Your task to perform on an android device: remove spam from my inbox in the gmail app Image 0: 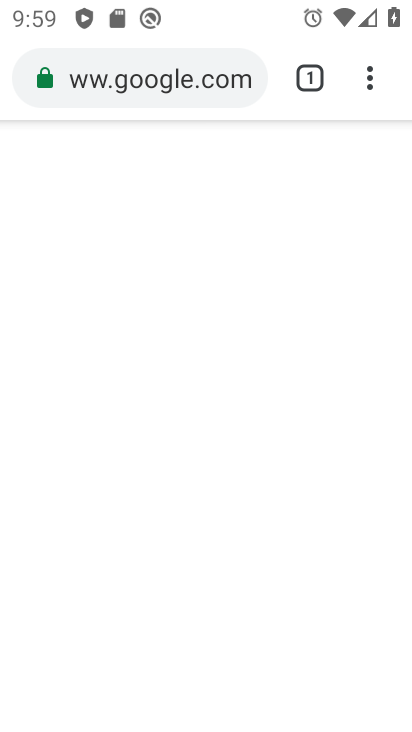
Step 0: click (407, 397)
Your task to perform on an android device: remove spam from my inbox in the gmail app Image 1: 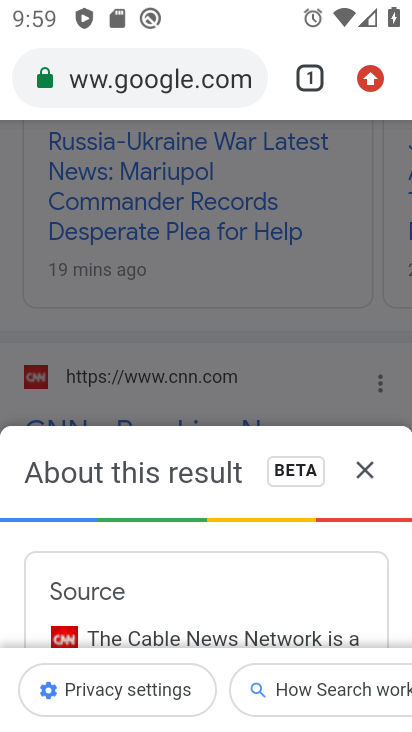
Step 1: click (197, 63)
Your task to perform on an android device: remove spam from my inbox in the gmail app Image 2: 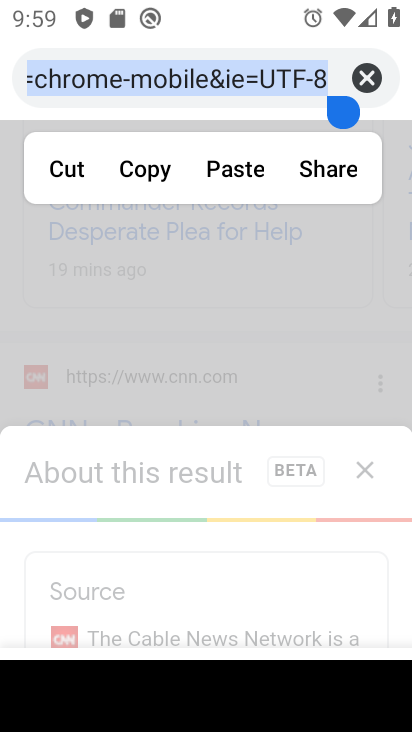
Step 2: click (378, 89)
Your task to perform on an android device: remove spam from my inbox in the gmail app Image 3: 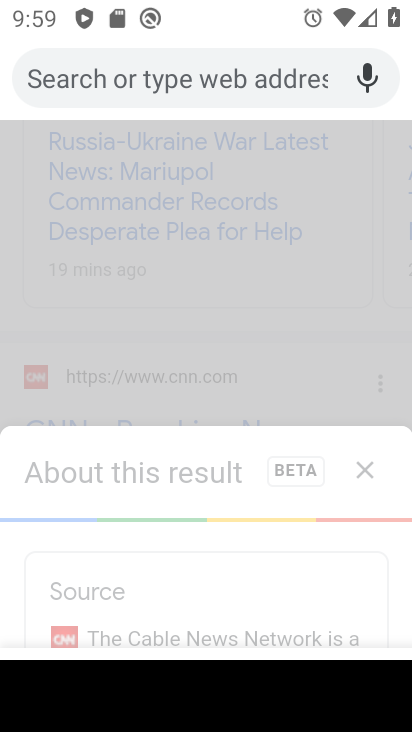
Step 3: click (193, 88)
Your task to perform on an android device: remove spam from my inbox in the gmail app Image 4: 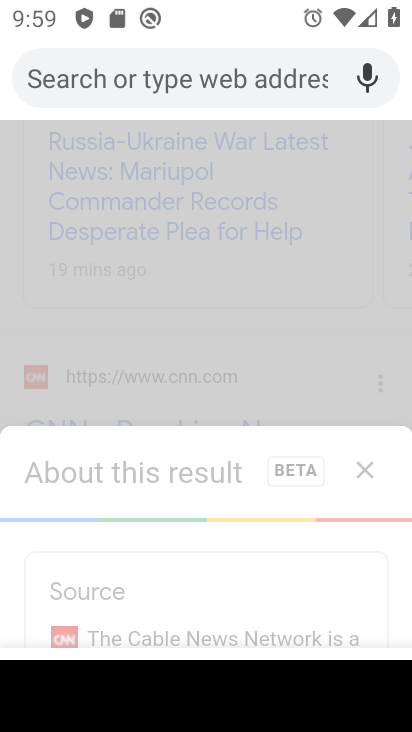
Step 4: press home button
Your task to perform on an android device: remove spam from my inbox in the gmail app Image 5: 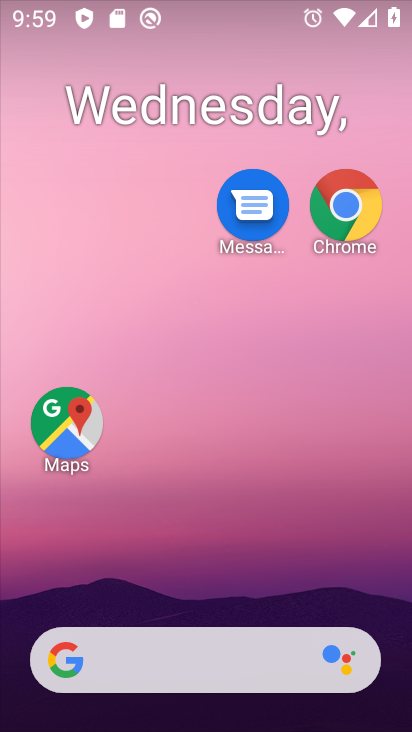
Step 5: drag from (172, 523) to (98, 18)
Your task to perform on an android device: remove spam from my inbox in the gmail app Image 6: 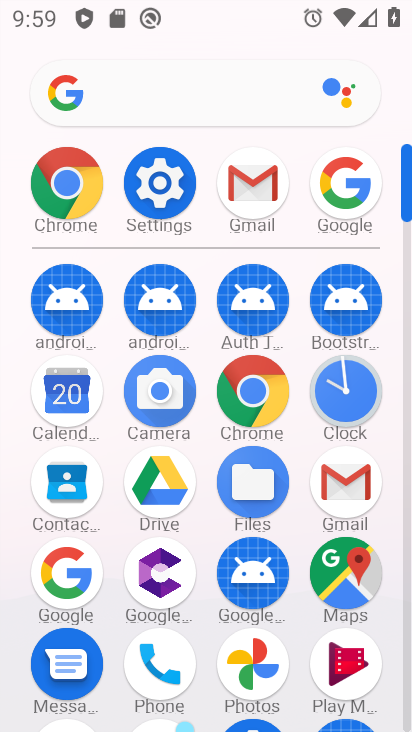
Step 6: click (338, 475)
Your task to perform on an android device: remove spam from my inbox in the gmail app Image 7: 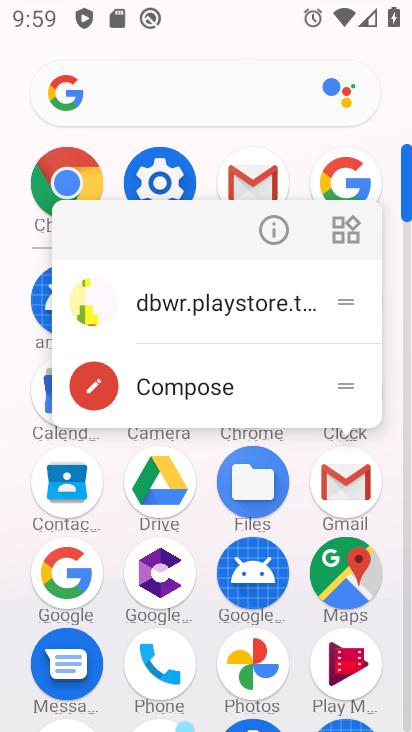
Step 7: click (261, 236)
Your task to perform on an android device: remove spam from my inbox in the gmail app Image 8: 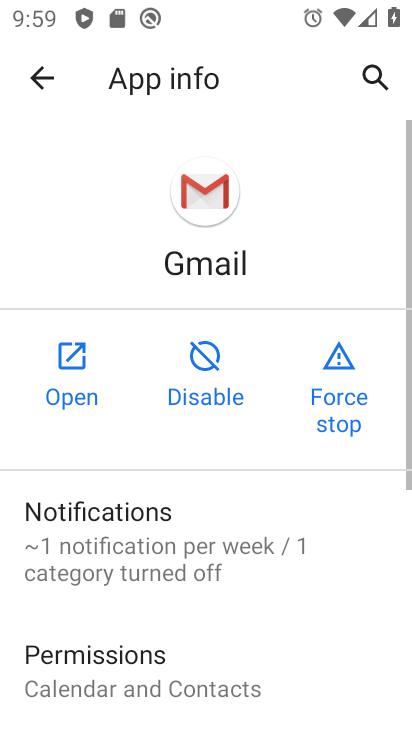
Step 8: click (74, 371)
Your task to perform on an android device: remove spam from my inbox in the gmail app Image 9: 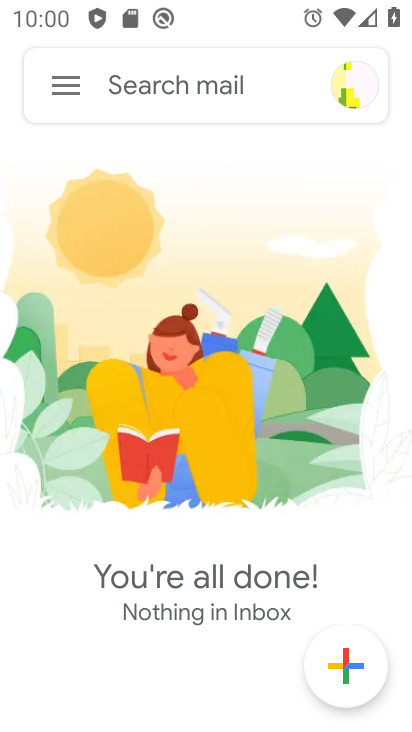
Step 9: click (74, 82)
Your task to perform on an android device: remove spam from my inbox in the gmail app Image 10: 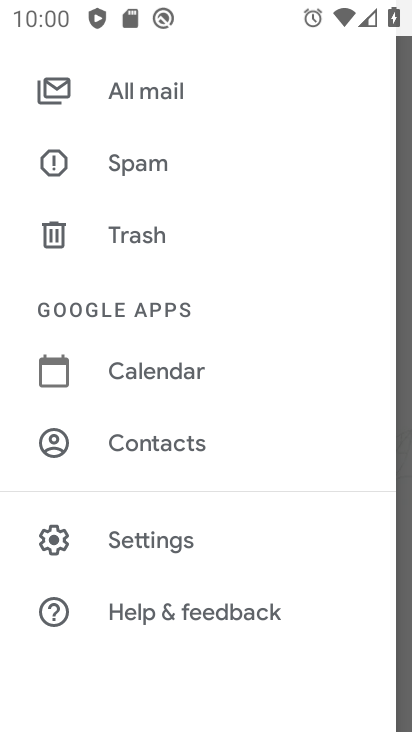
Step 10: click (146, 176)
Your task to perform on an android device: remove spam from my inbox in the gmail app Image 11: 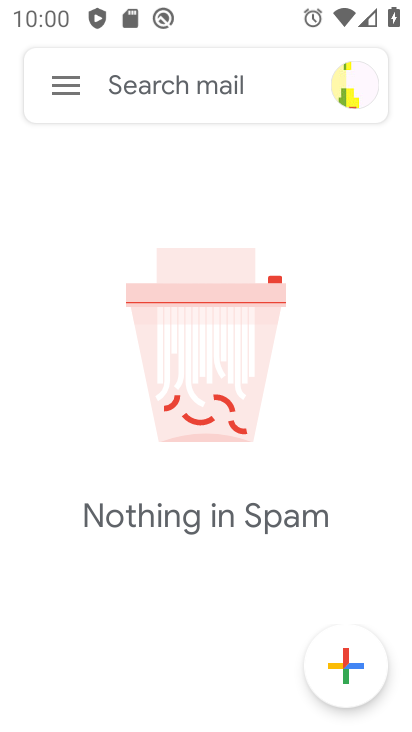
Step 11: task complete